Your task to perform on an android device: Check the news Image 0: 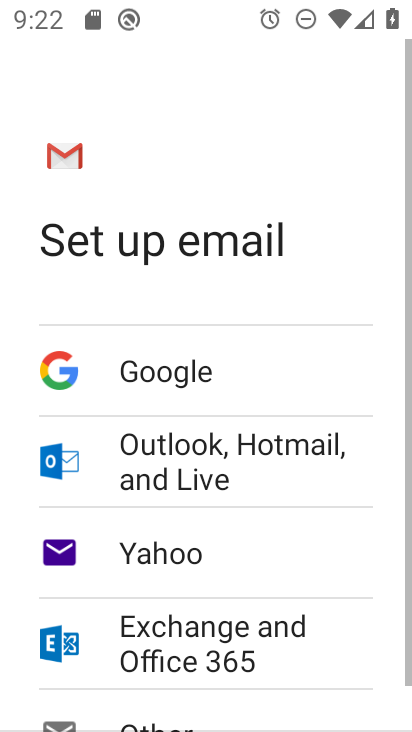
Step 0: press home button
Your task to perform on an android device: Check the news Image 1: 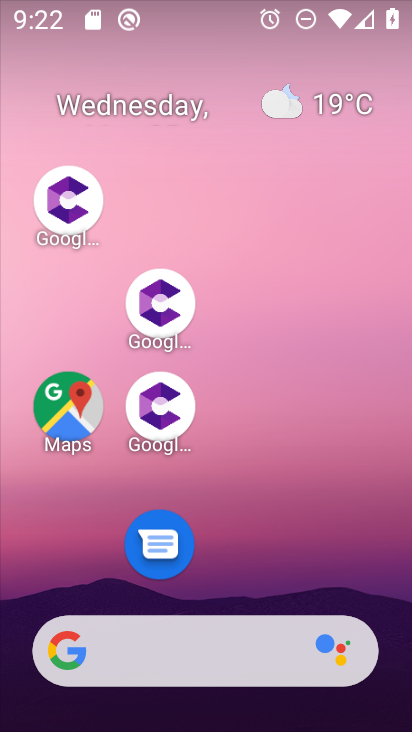
Step 1: drag from (331, 527) to (183, 47)
Your task to perform on an android device: Check the news Image 2: 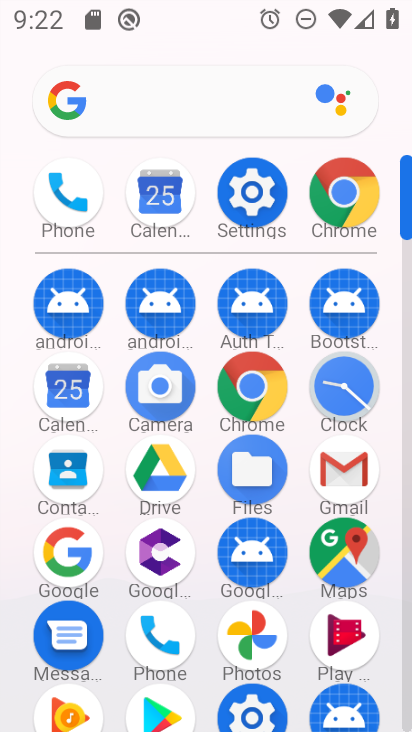
Step 2: click (61, 94)
Your task to perform on an android device: Check the news Image 3: 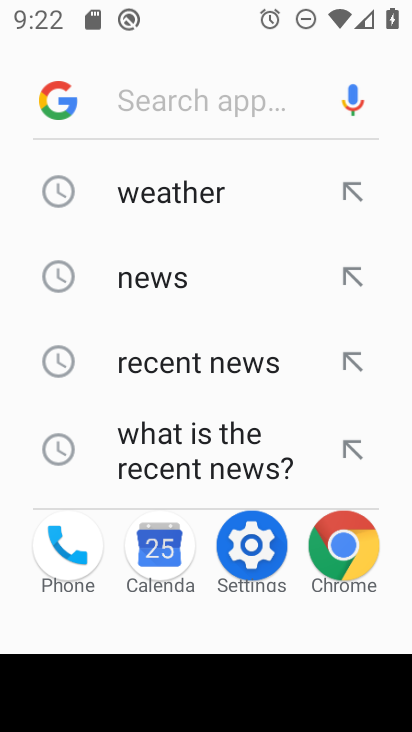
Step 3: click (69, 94)
Your task to perform on an android device: Check the news Image 4: 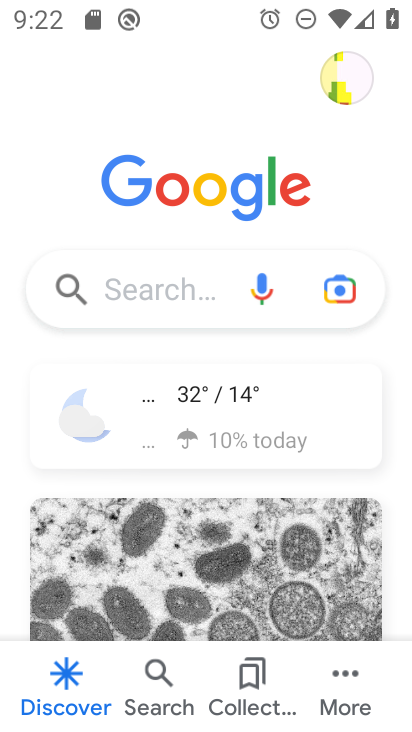
Step 4: click (134, 283)
Your task to perform on an android device: Check the news Image 5: 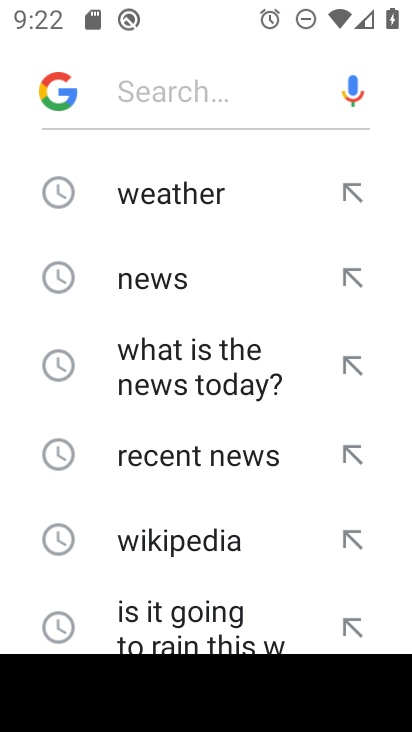
Step 5: click (153, 265)
Your task to perform on an android device: Check the news Image 6: 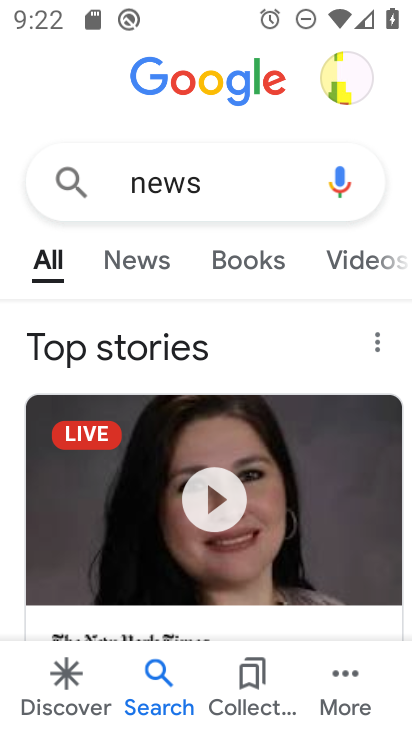
Step 6: task complete